Your task to perform on an android device: empty trash in google photos Image 0: 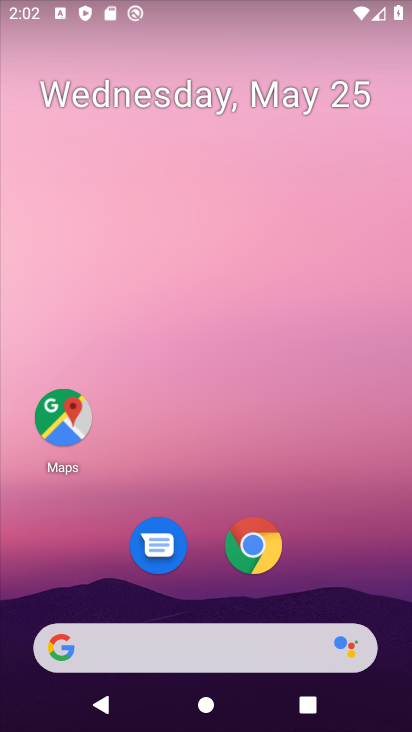
Step 0: drag from (319, 288) to (338, 92)
Your task to perform on an android device: empty trash in google photos Image 1: 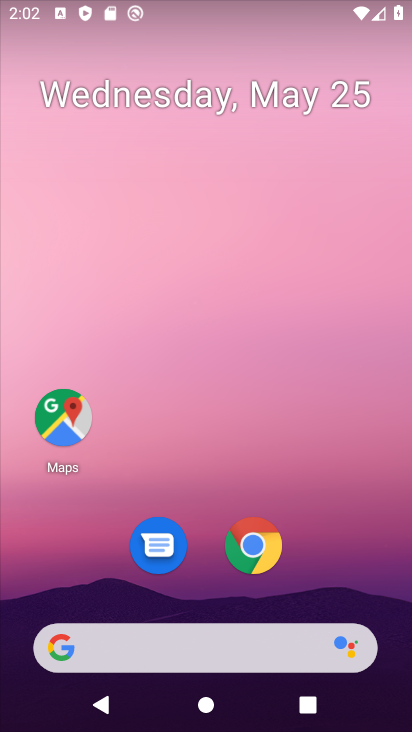
Step 1: drag from (332, 566) to (329, 178)
Your task to perform on an android device: empty trash in google photos Image 2: 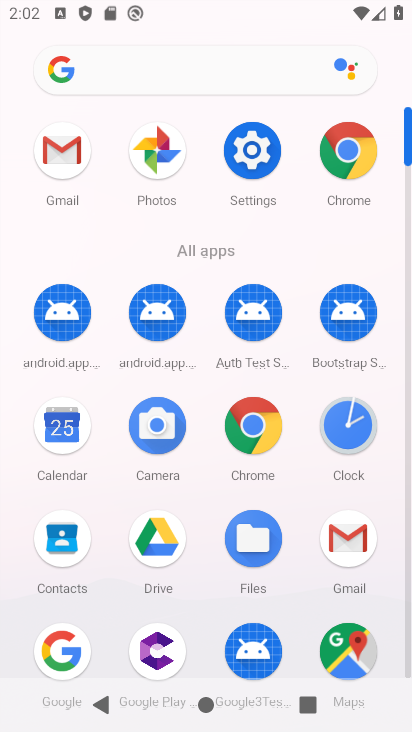
Step 2: click (170, 134)
Your task to perform on an android device: empty trash in google photos Image 3: 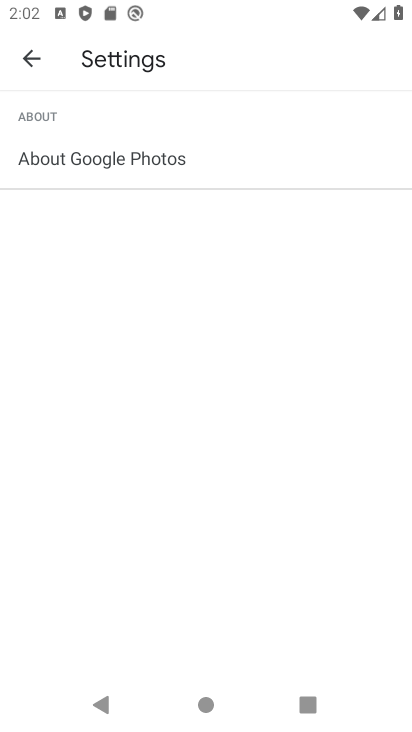
Step 3: task complete